Your task to perform on an android device: turn on translation in the chrome app Image 0: 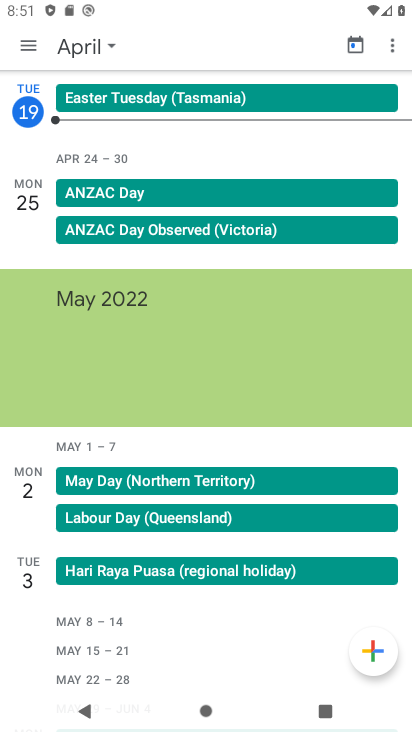
Step 0: press home button
Your task to perform on an android device: turn on translation in the chrome app Image 1: 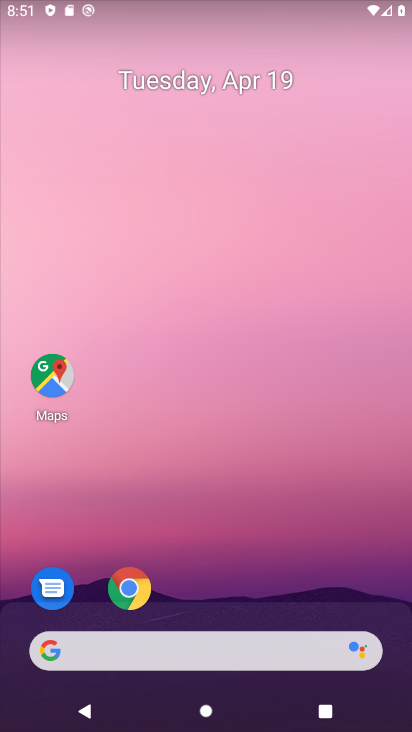
Step 1: click (129, 588)
Your task to perform on an android device: turn on translation in the chrome app Image 2: 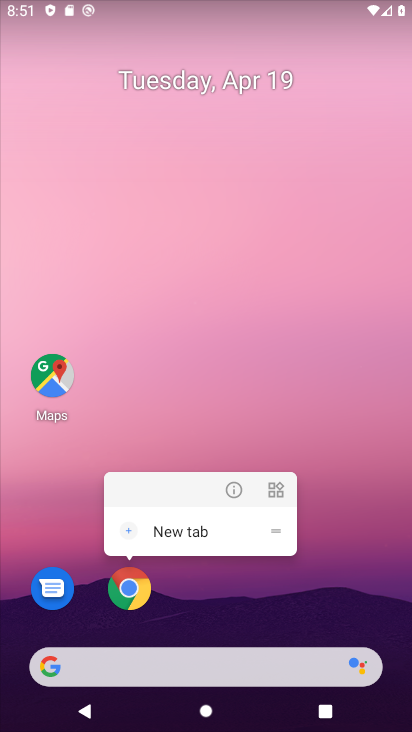
Step 2: click (129, 588)
Your task to perform on an android device: turn on translation in the chrome app Image 3: 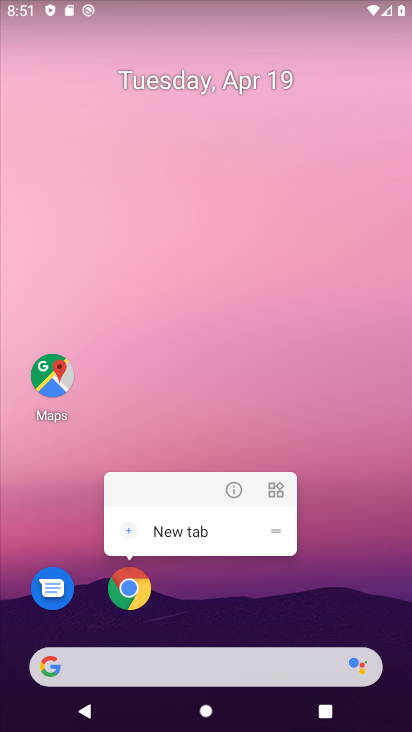
Step 3: click (133, 596)
Your task to perform on an android device: turn on translation in the chrome app Image 4: 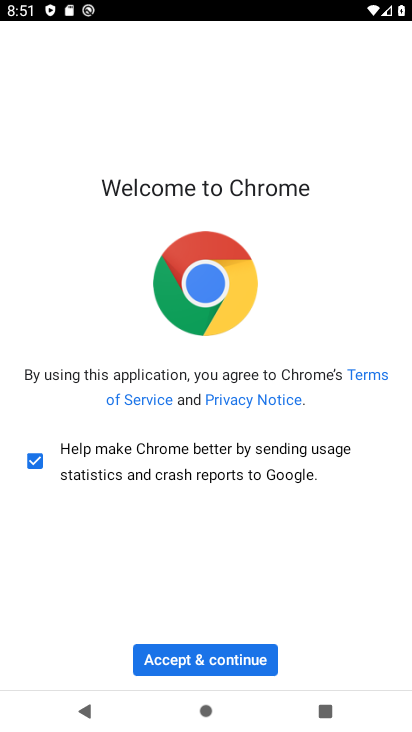
Step 4: click (183, 653)
Your task to perform on an android device: turn on translation in the chrome app Image 5: 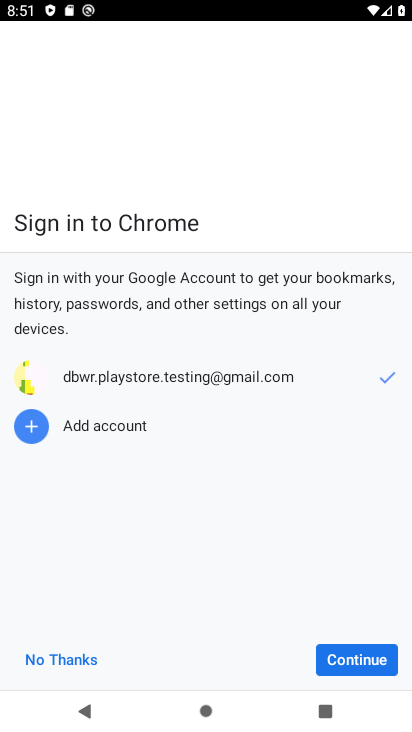
Step 5: click (351, 660)
Your task to perform on an android device: turn on translation in the chrome app Image 6: 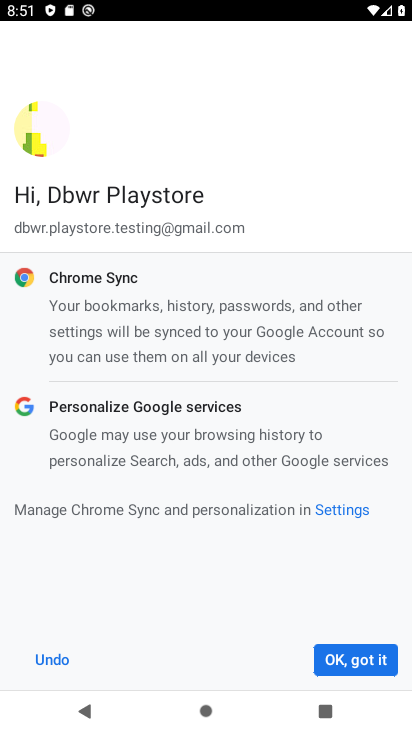
Step 6: click (351, 660)
Your task to perform on an android device: turn on translation in the chrome app Image 7: 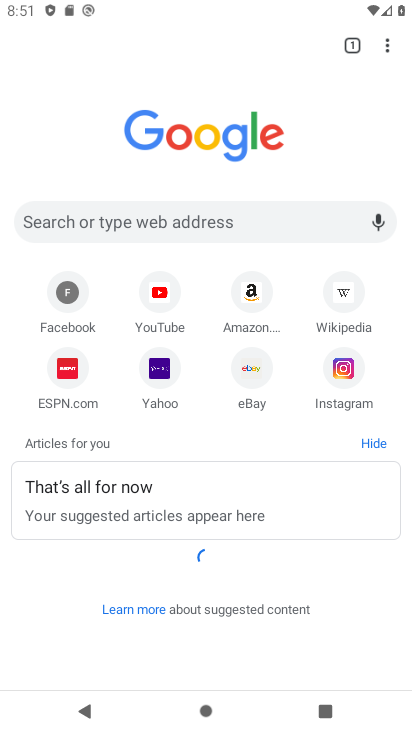
Step 7: click (386, 48)
Your task to perform on an android device: turn on translation in the chrome app Image 8: 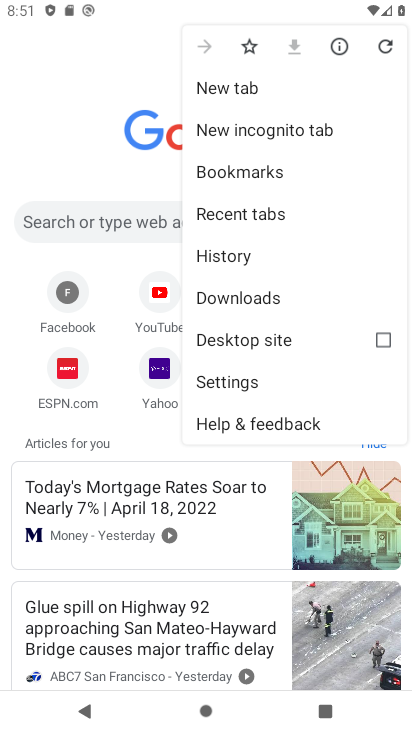
Step 8: click (233, 382)
Your task to perform on an android device: turn on translation in the chrome app Image 9: 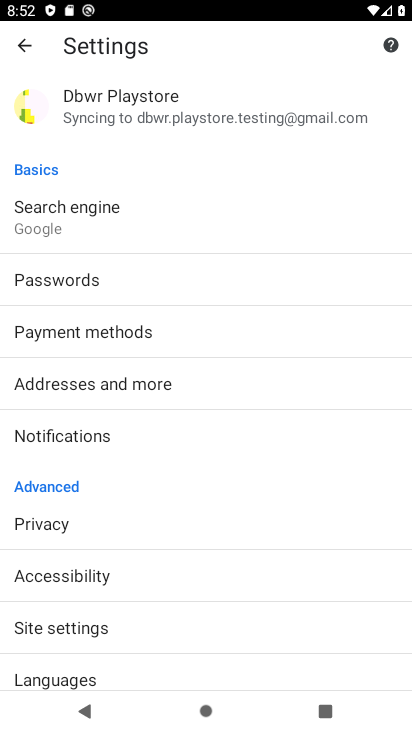
Step 9: click (72, 681)
Your task to perform on an android device: turn on translation in the chrome app Image 10: 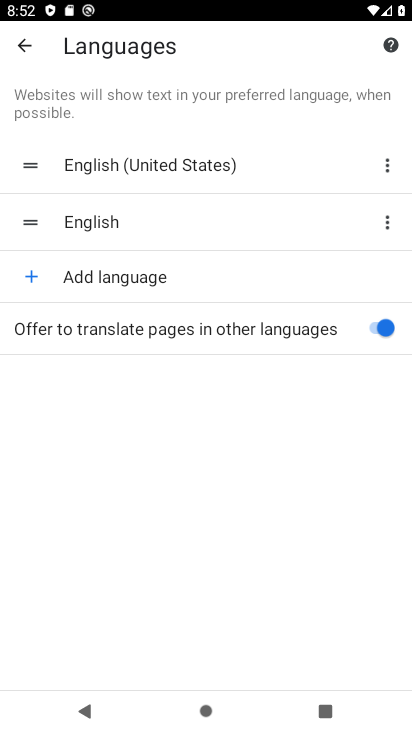
Step 10: task complete